Your task to perform on an android device: Go to Yahoo.com Image 0: 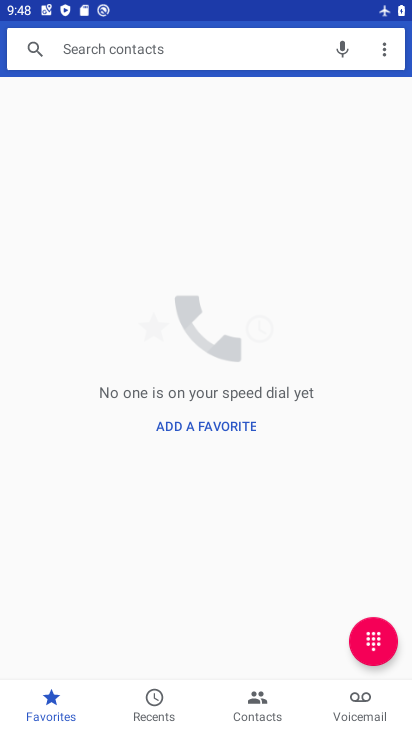
Step 0: press home button
Your task to perform on an android device: Go to Yahoo.com Image 1: 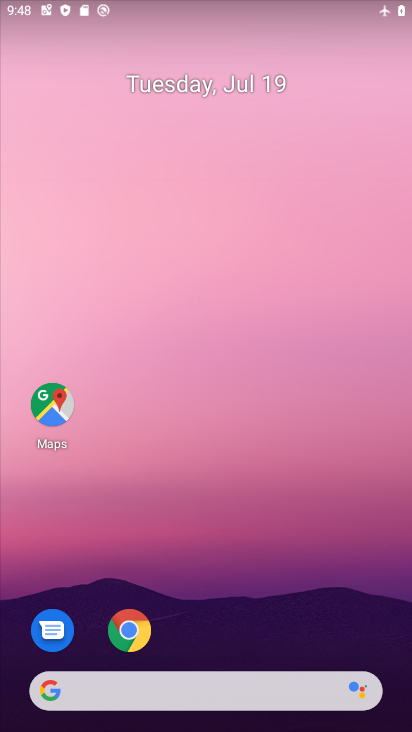
Step 1: click (133, 630)
Your task to perform on an android device: Go to Yahoo.com Image 2: 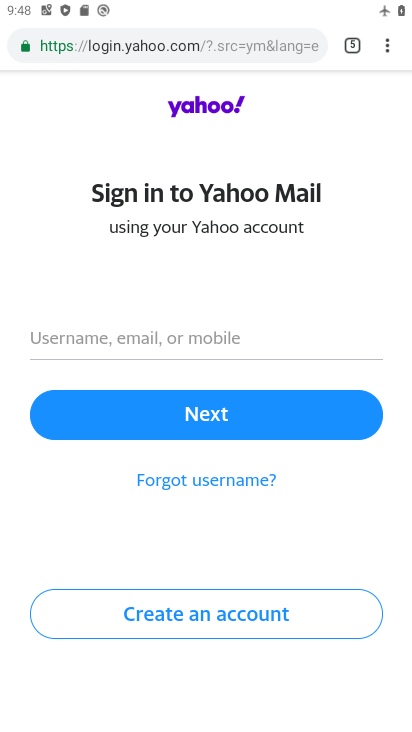
Step 2: task complete